Your task to perform on an android device: change timer sound Image 0: 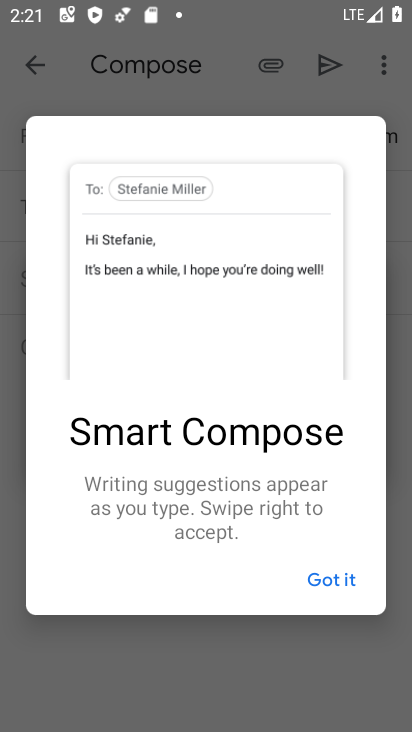
Step 0: press home button
Your task to perform on an android device: change timer sound Image 1: 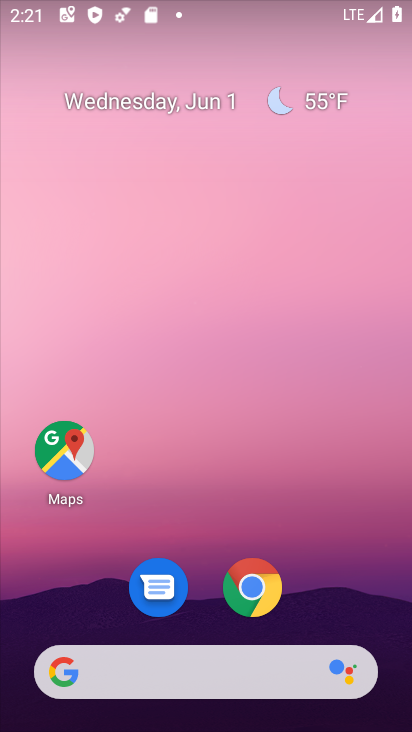
Step 1: drag from (163, 649) to (70, 134)
Your task to perform on an android device: change timer sound Image 2: 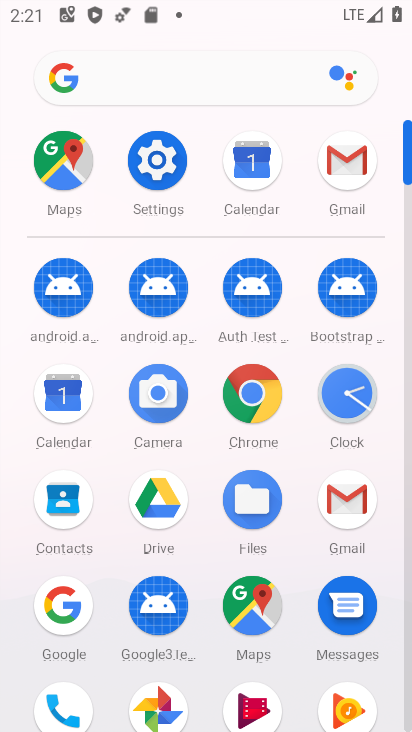
Step 2: click (356, 391)
Your task to perform on an android device: change timer sound Image 3: 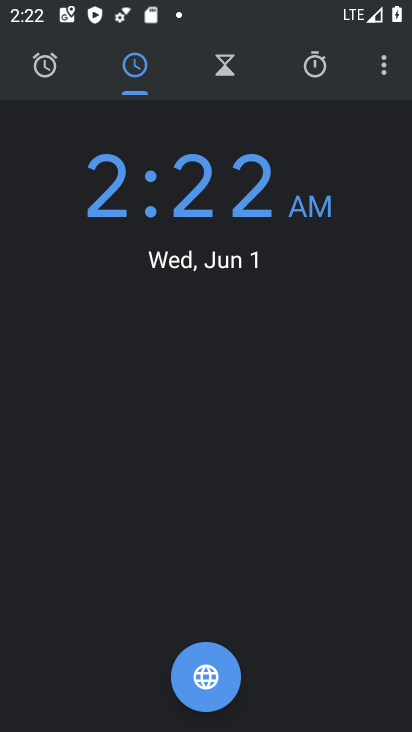
Step 3: click (374, 79)
Your task to perform on an android device: change timer sound Image 4: 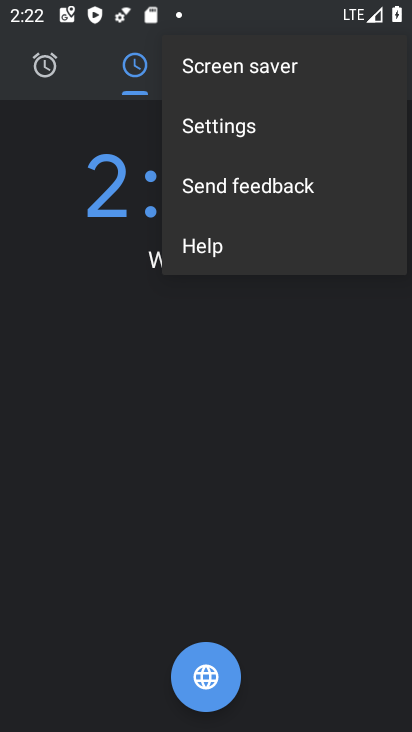
Step 4: click (270, 133)
Your task to perform on an android device: change timer sound Image 5: 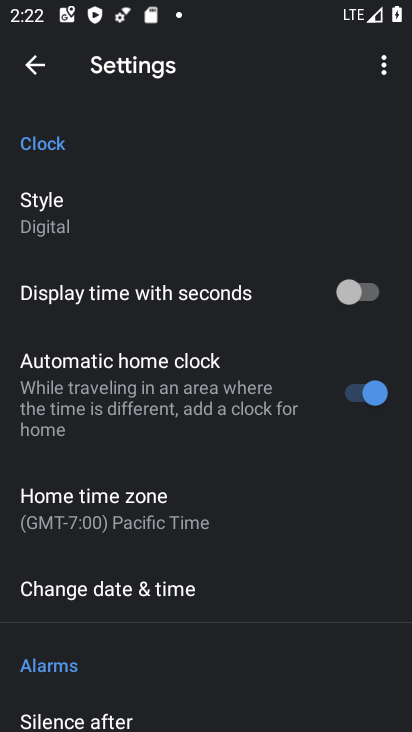
Step 5: drag from (196, 569) to (179, 91)
Your task to perform on an android device: change timer sound Image 6: 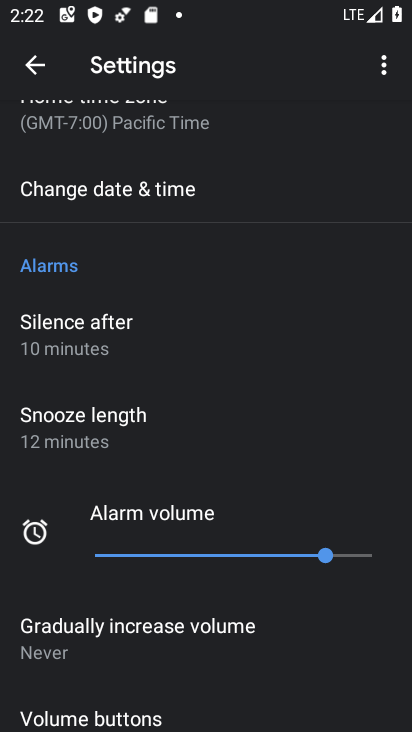
Step 6: drag from (149, 429) to (175, 111)
Your task to perform on an android device: change timer sound Image 7: 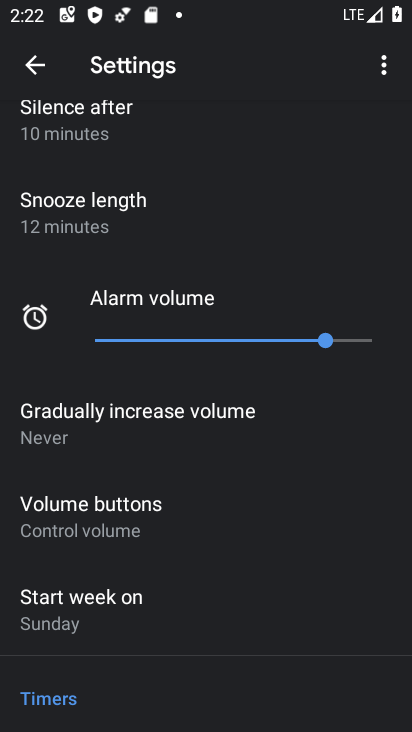
Step 7: drag from (214, 540) to (226, 122)
Your task to perform on an android device: change timer sound Image 8: 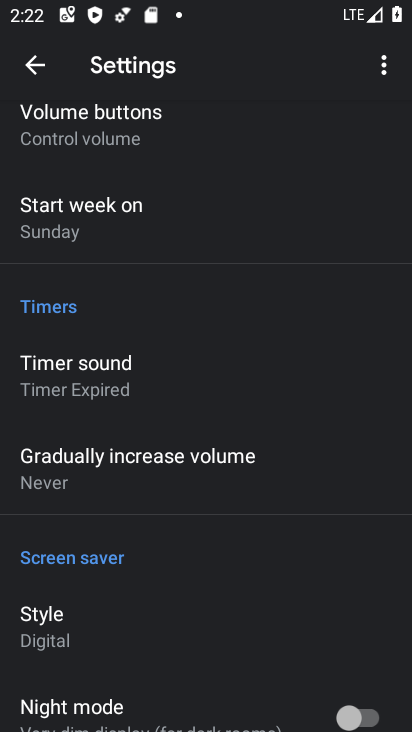
Step 8: click (145, 378)
Your task to perform on an android device: change timer sound Image 9: 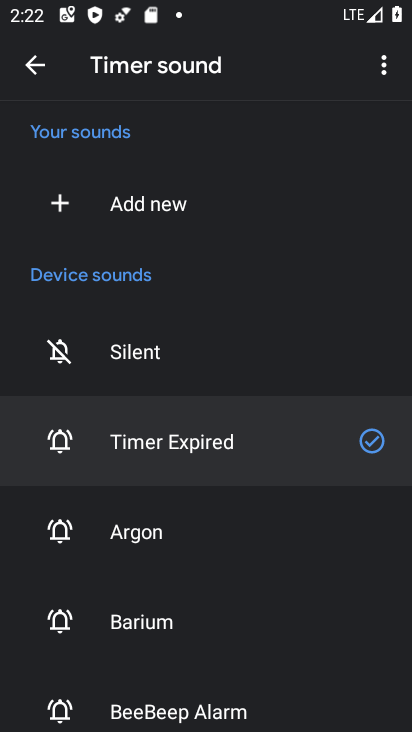
Step 9: click (188, 696)
Your task to perform on an android device: change timer sound Image 10: 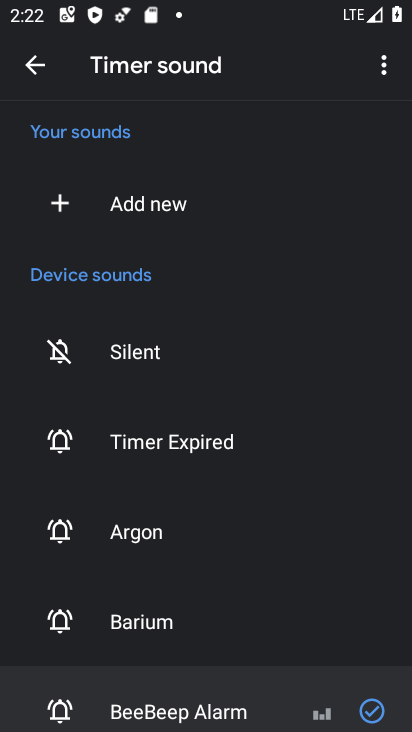
Step 10: task complete